Your task to perform on an android device: delete a single message in the gmail app Image 0: 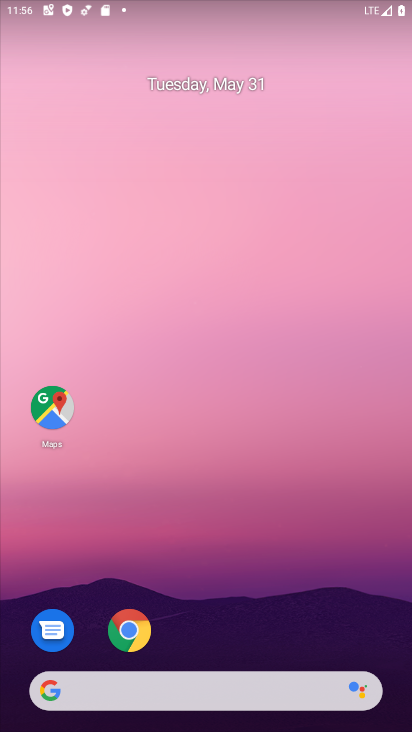
Step 0: drag from (264, 558) to (261, 147)
Your task to perform on an android device: delete a single message in the gmail app Image 1: 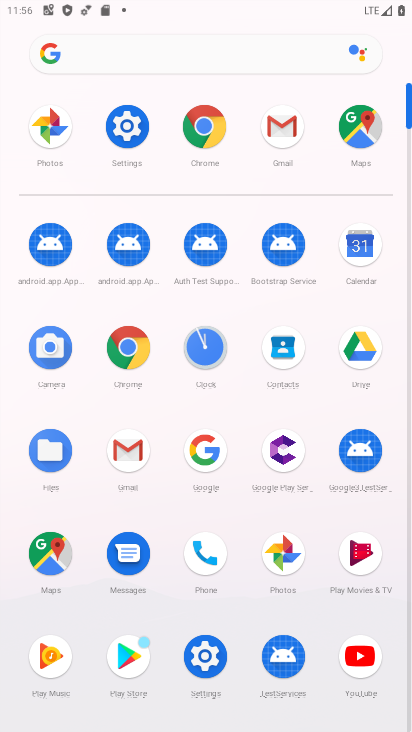
Step 1: click (288, 118)
Your task to perform on an android device: delete a single message in the gmail app Image 2: 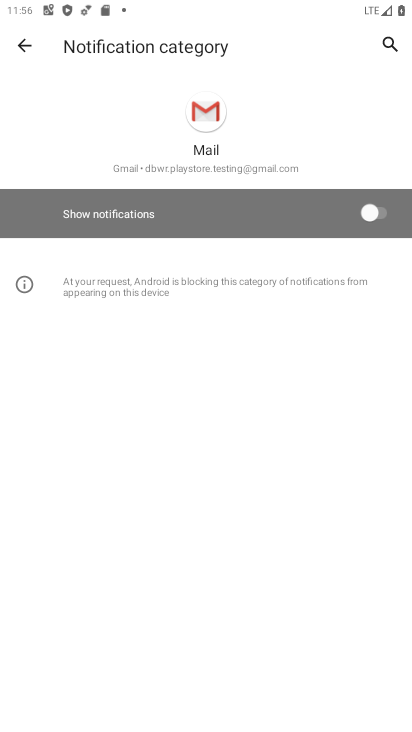
Step 2: click (19, 39)
Your task to perform on an android device: delete a single message in the gmail app Image 3: 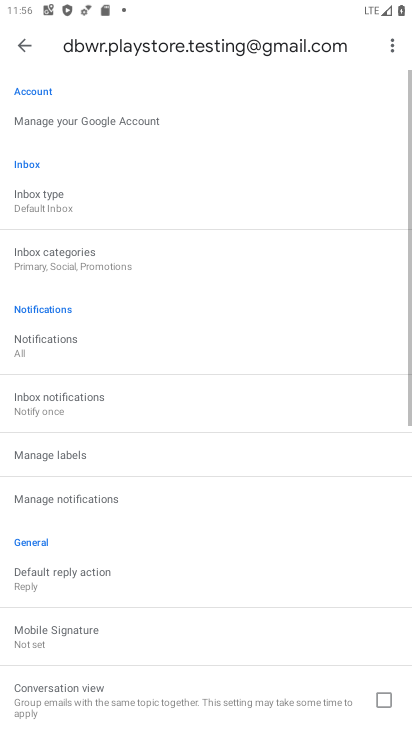
Step 3: click (20, 48)
Your task to perform on an android device: delete a single message in the gmail app Image 4: 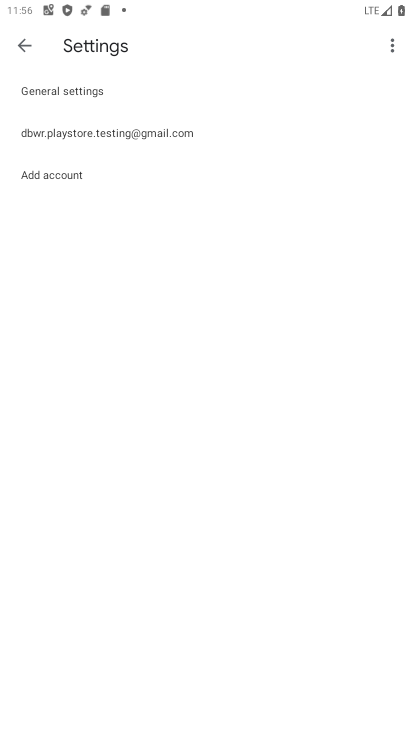
Step 4: click (25, 49)
Your task to perform on an android device: delete a single message in the gmail app Image 5: 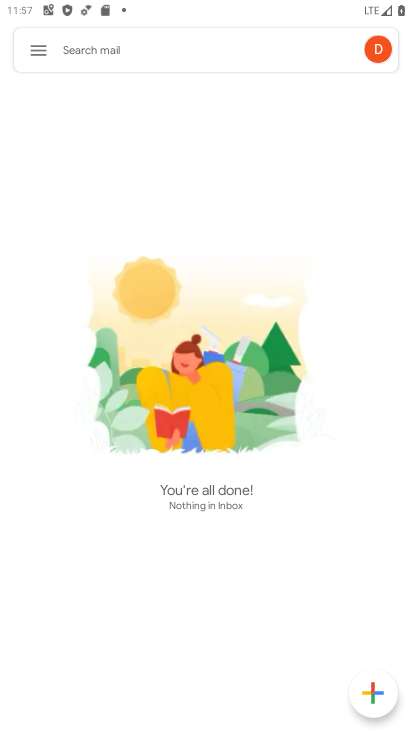
Step 5: task complete